Your task to perform on an android device: Clear the cart on walmart.com. Add lg ultragear to the cart on walmart.com, then select checkout. Image 0: 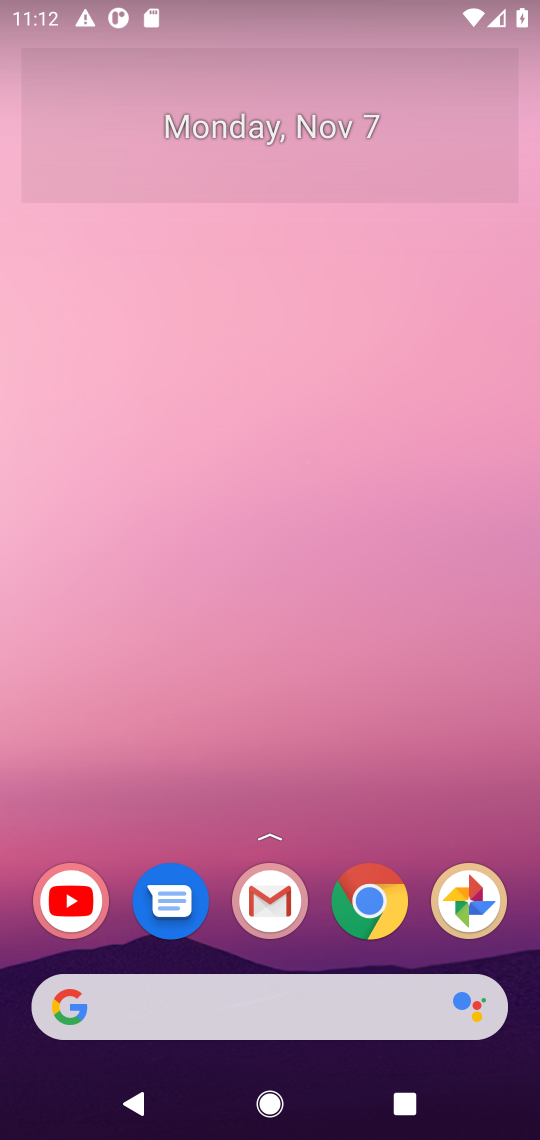
Step 0: click (371, 894)
Your task to perform on an android device: Clear the cart on walmart.com. Add lg ultragear to the cart on walmart.com, then select checkout. Image 1: 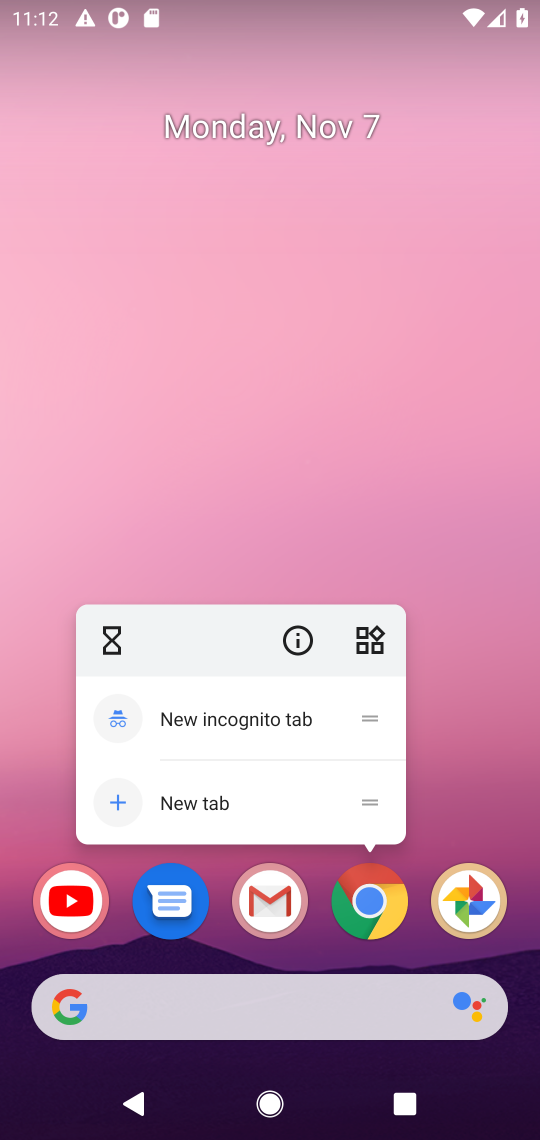
Step 1: click (351, 896)
Your task to perform on an android device: Clear the cart on walmart.com. Add lg ultragear to the cart on walmart.com, then select checkout. Image 2: 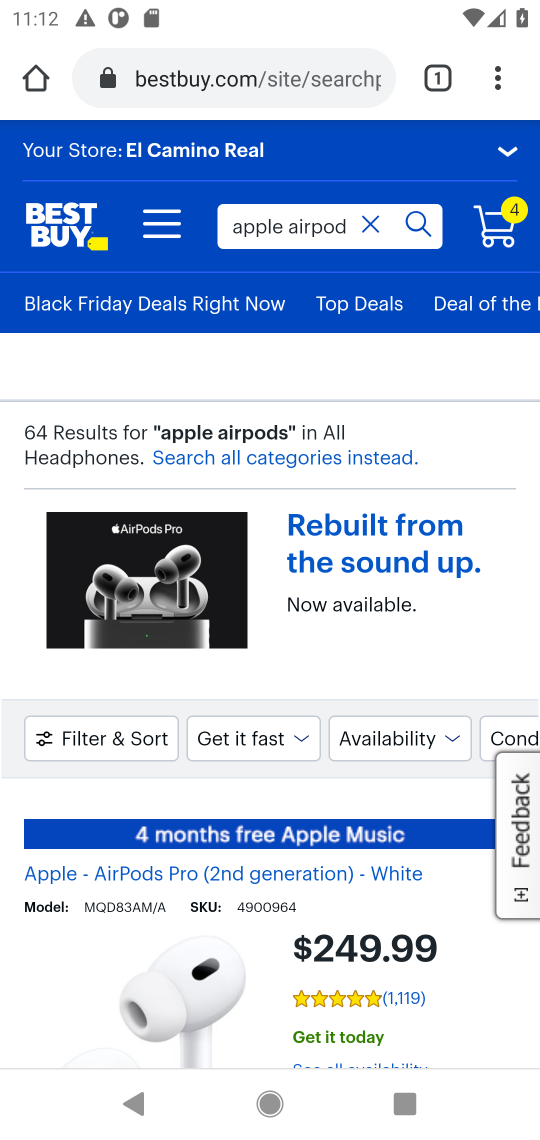
Step 2: click (275, 70)
Your task to perform on an android device: Clear the cart on walmart.com. Add lg ultragear to the cart on walmart.com, then select checkout. Image 3: 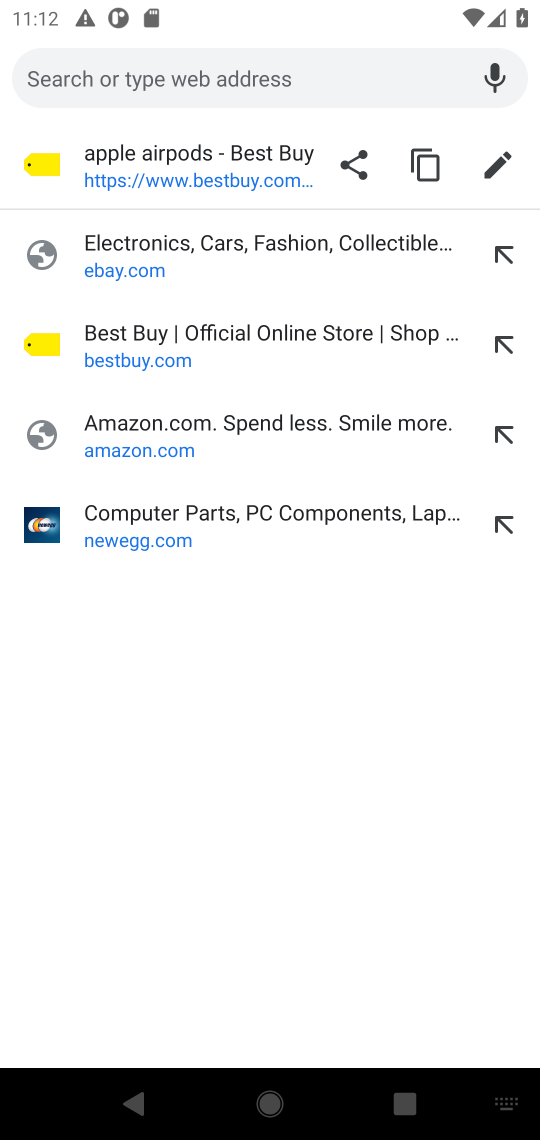
Step 3: type "walmart.com"
Your task to perform on an android device: Clear the cart on walmart.com. Add lg ultragear to the cart on walmart.com, then select checkout. Image 4: 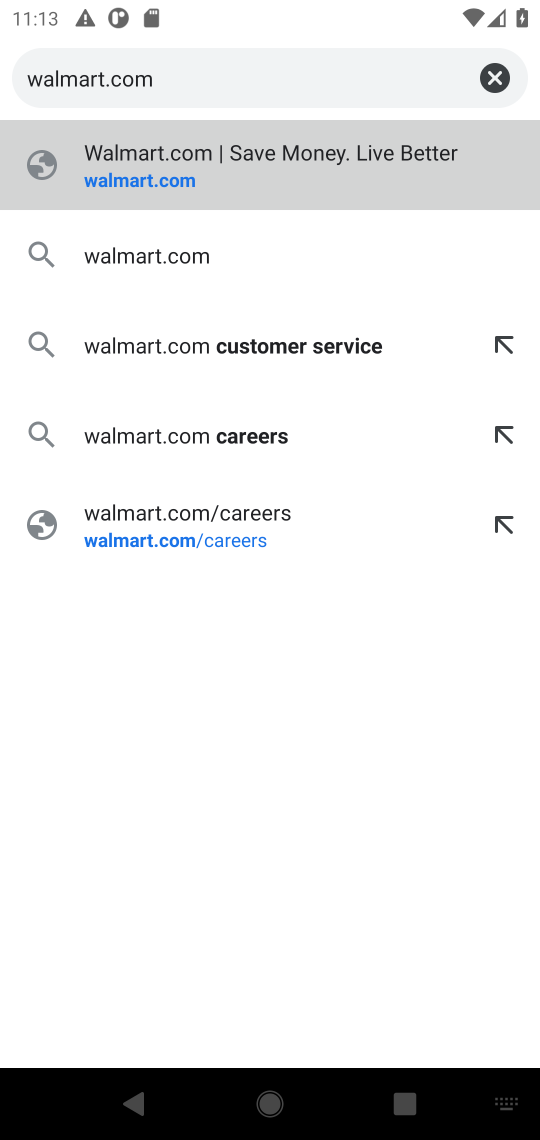
Step 4: click (271, 159)
Your task to perform on an android device: Clear the cart on walmart.com. Add lg ultragear to the cart on walmart.com, then select checkout. Image 5: 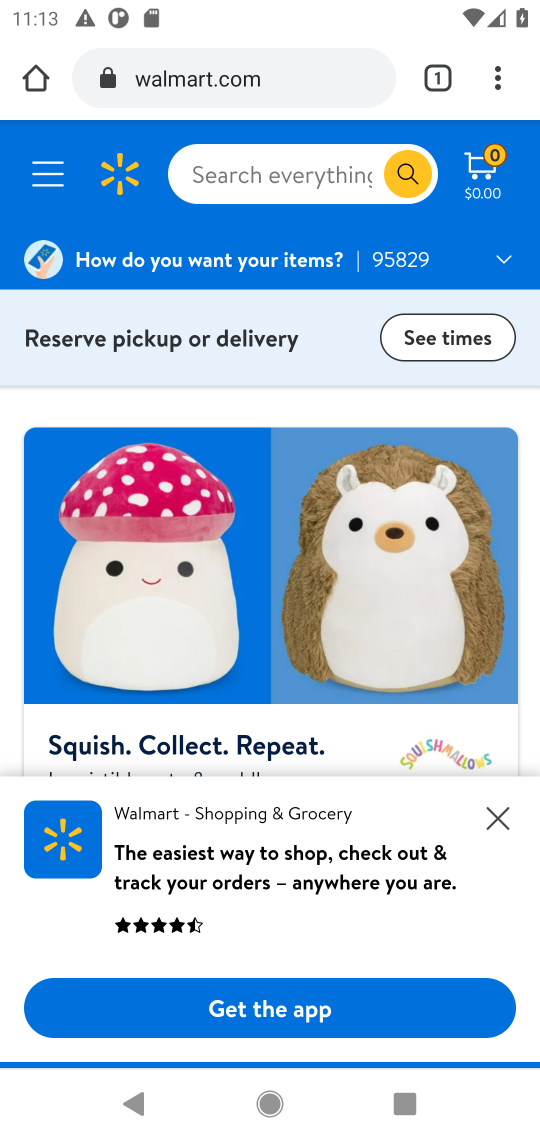
Step 5: click (495, 178)
Your task to perform on an android device: Clear the cart on walmart.com. Add lg ultragear to the cart on walmart.com, then select checkout. Image 6: 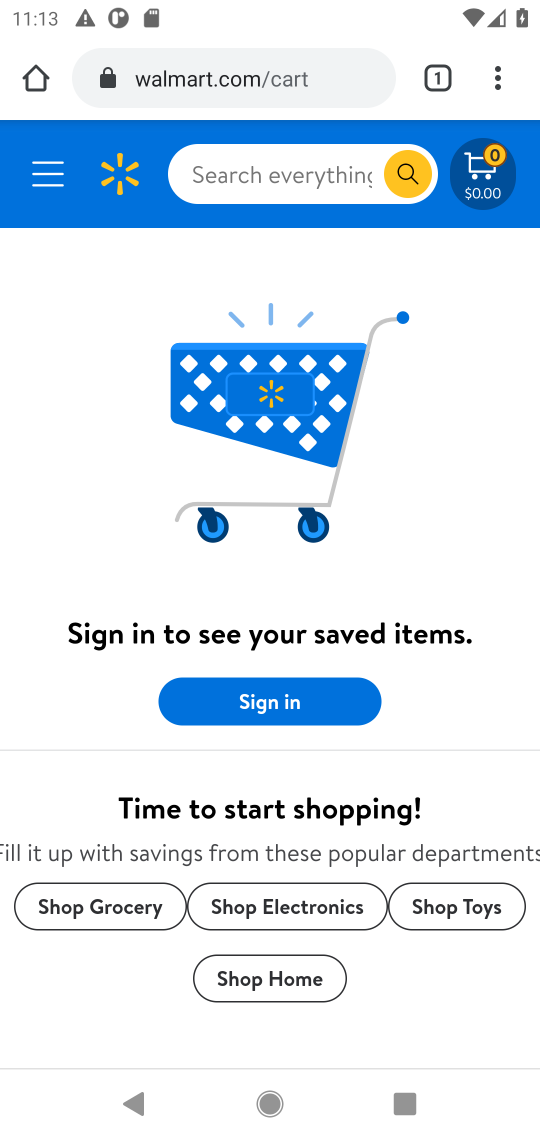
Step 6: click (301, 198)
Your task to perform on an android device: Clear the cart on walmart.com. Add lg ultragear to the cart on walmart.com, then select checkout. Image 7: 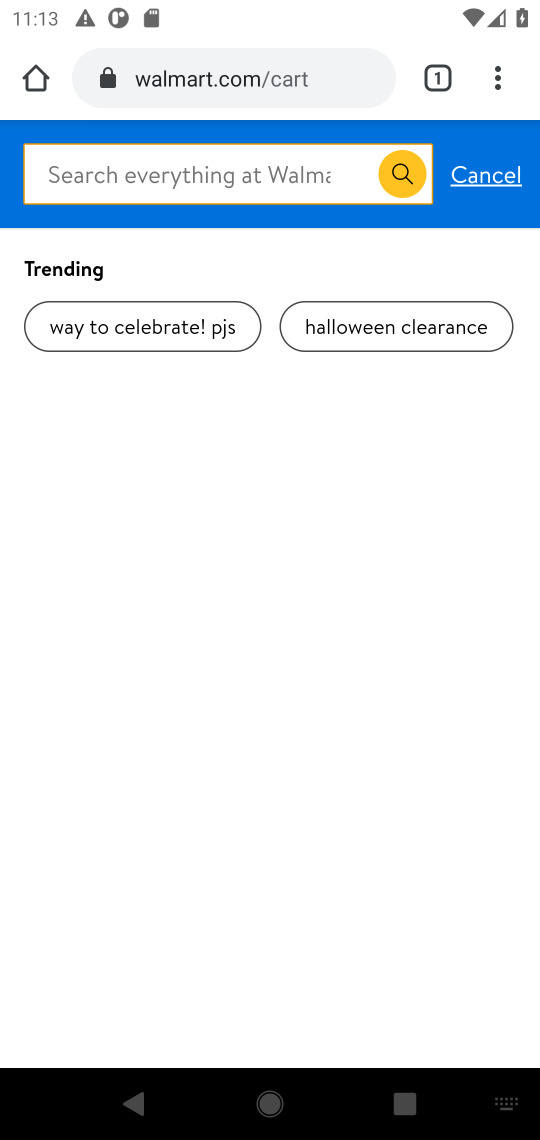
Step 7: type "lg ultra gear"
Your task to perform on an android device: Clear the cart on walmart.com. Add lg ultragear to the cart on walmart.com, then select checkout. Image 8: 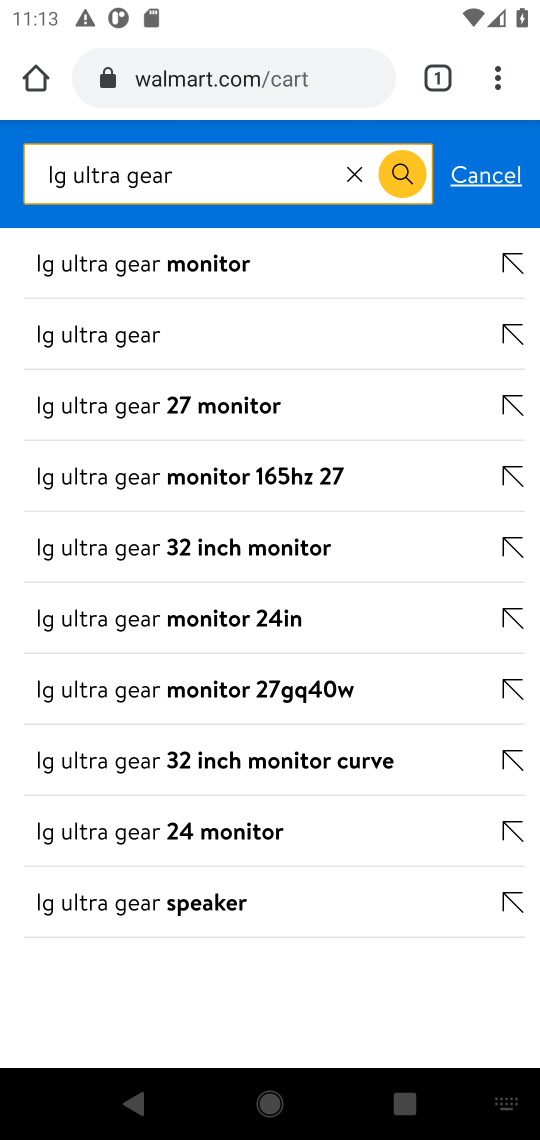
Step 8: press enter
Your task to perform on an android device: Clear the cart on walmart.com. Add lg ultragear to the cart on walmart.com, then select checkout. Image 9: 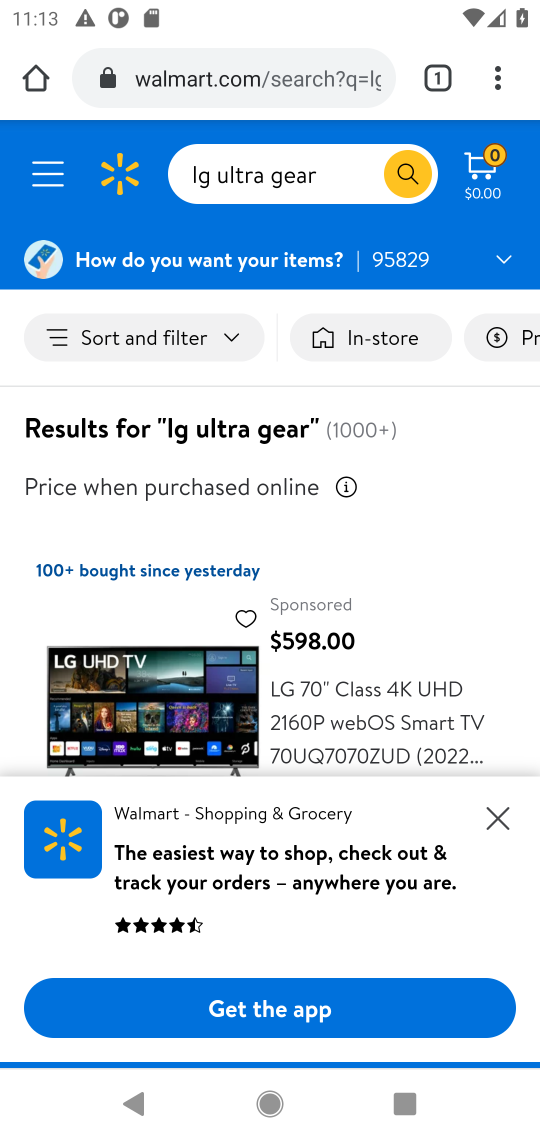
Step 9: click (511, 811)
Your task to perform on an android device: Clear the cart on walmart.com. Add lg ultragear to the cart on walmart.com, then select checkout. Image 10: 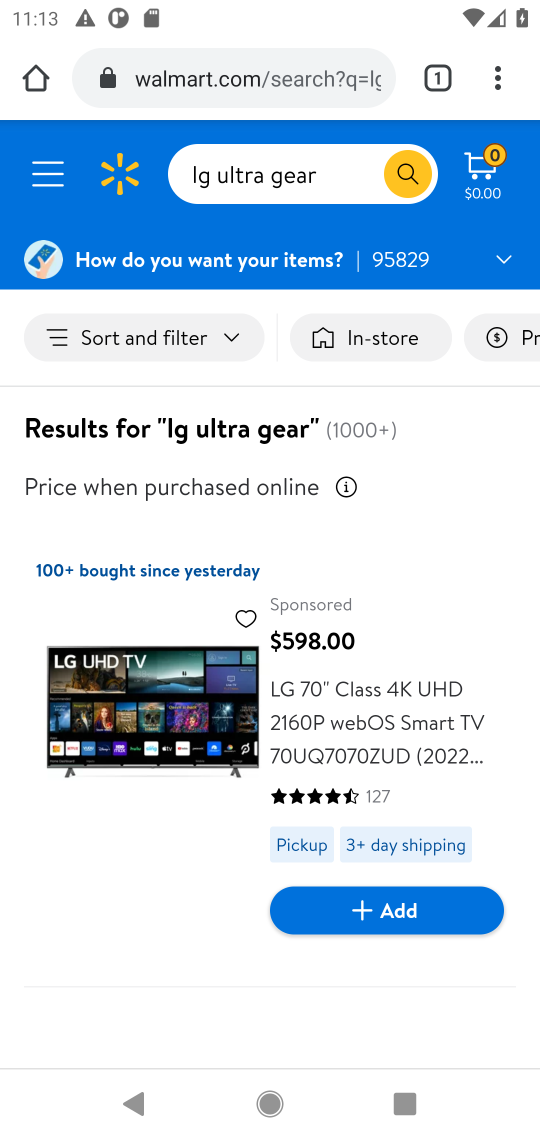
Step 10: click (318, 903)
Your task to perform on an android device: Clear the cart on walmart.com. Add lg ultragear to the cart on walmart.com, then select checkout. Image 11: 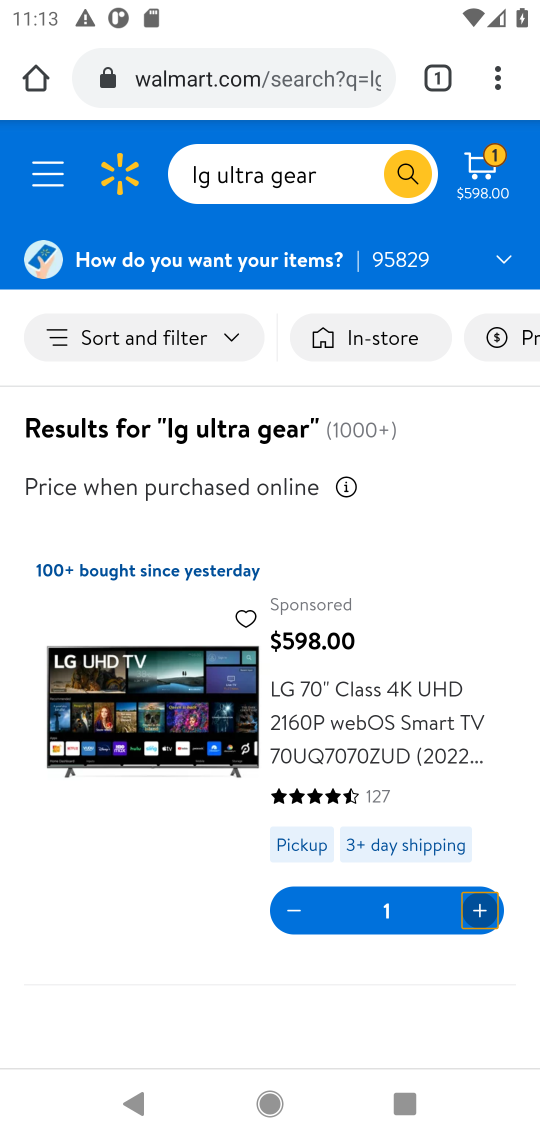
Step 11: click (494, 166)
Your task to perform on an android device: Clear the cart on walmart.com. Add lg ultragear to the cart on walmart.com, then select checkout. Image 12: 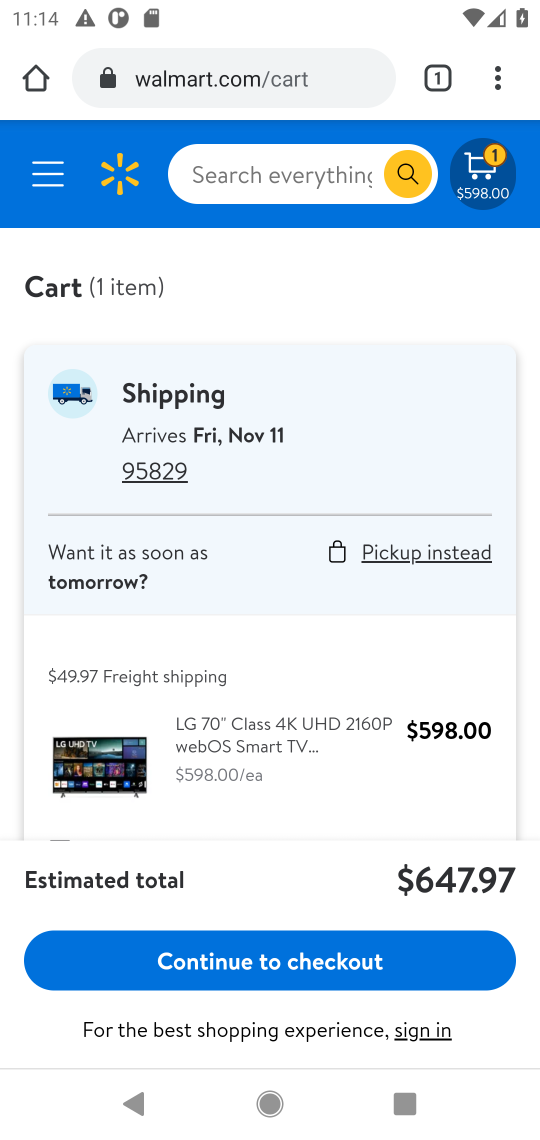
Step 12: click (267, 974)
Your task to perform on an android device: Clear the cart on walmart.com. Add lg ultragear to the cart on walmart.com, then select checkout. Image 13: 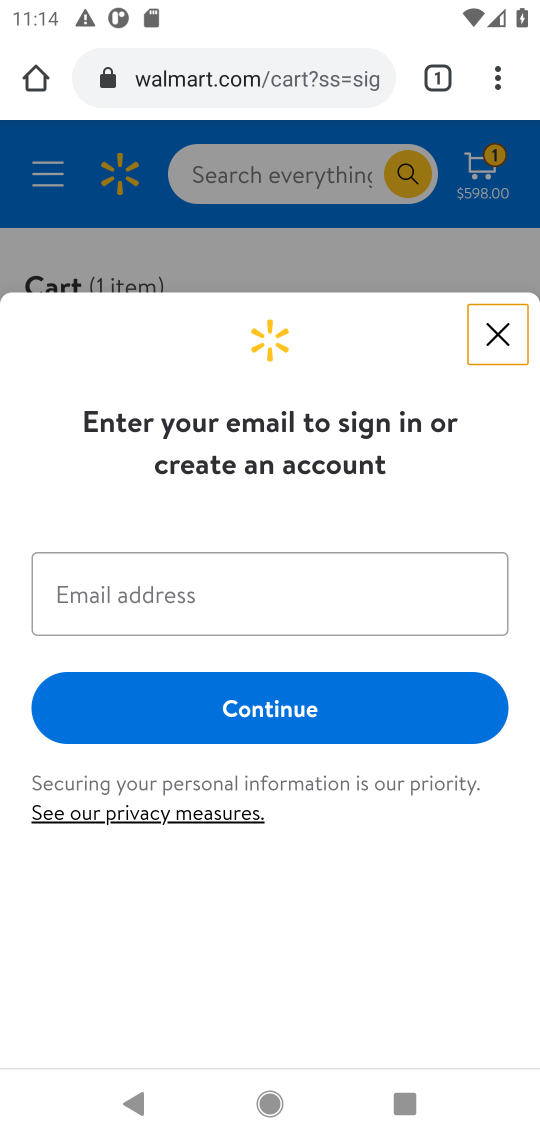
Step 13: task complete